Your task to perform on an android device: stop showing notifications on the lock screen Image 0: 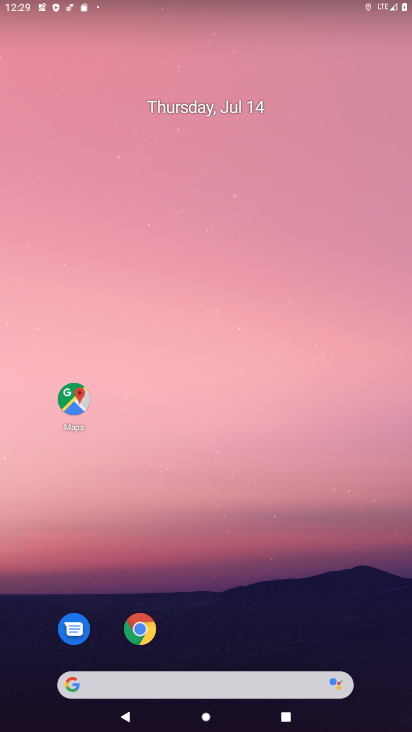
Step 0: drag from (288, 600) to (200, 29)
Your task to perform on an android device: stop showing notifications on the lock screen Image 1: 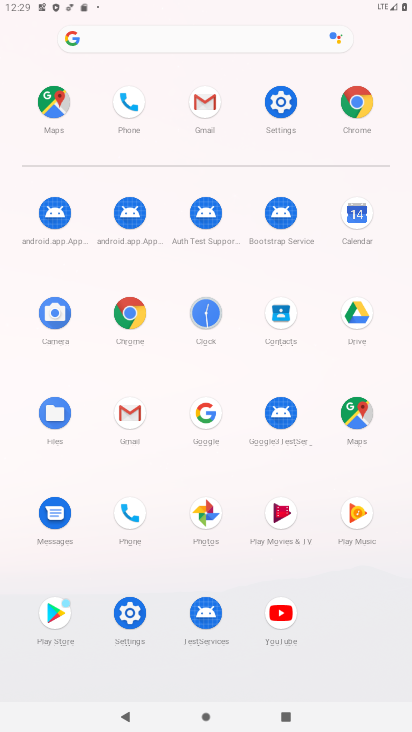
Step 1: click (267, 116)
Your task to perform on an android device: stop showing notifications on the lock screen Image 2: 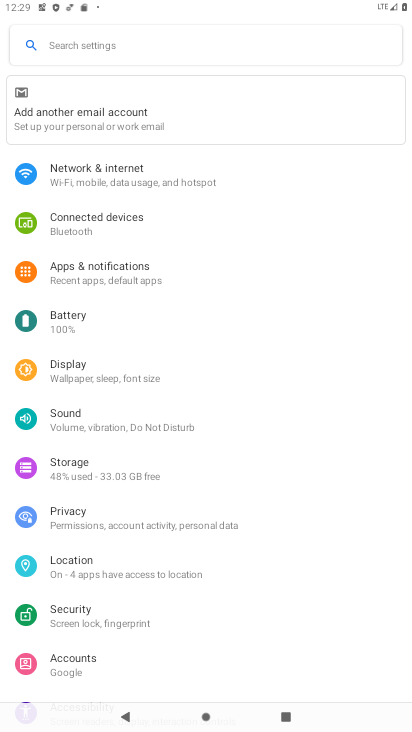
Step 2: click (135, 280)
Your task to perform on an android device: stop showing notifications on the lock screen Image 3: 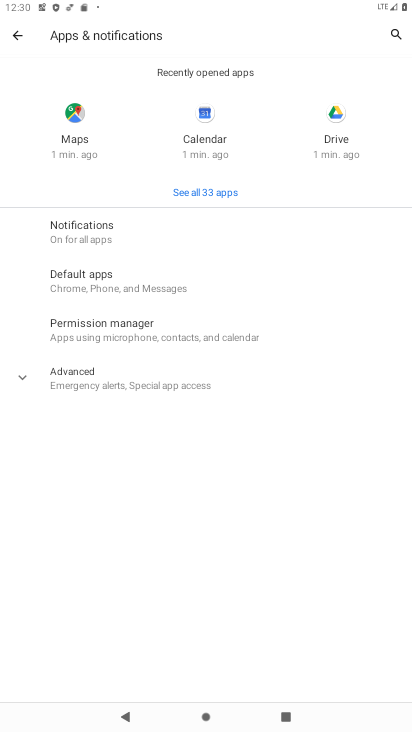
Step 3: click (79, 228)
Your task to perform on an android device: stop showing notifications on the lock screen Image 4: 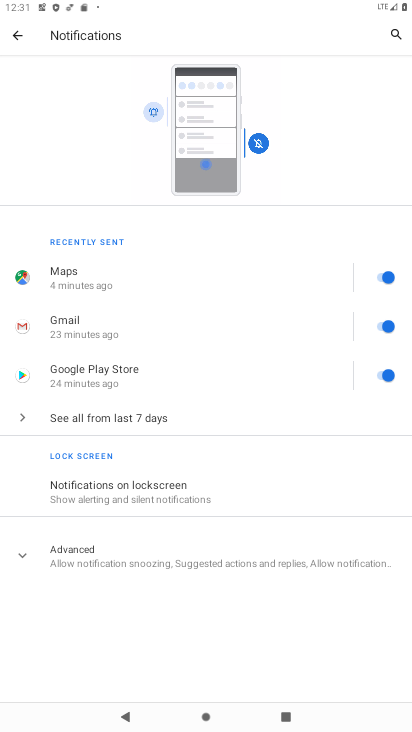
Step 4: click (123, 492)
Your task to perform on an android device: stop showing notifications on the lock screen Image 5: 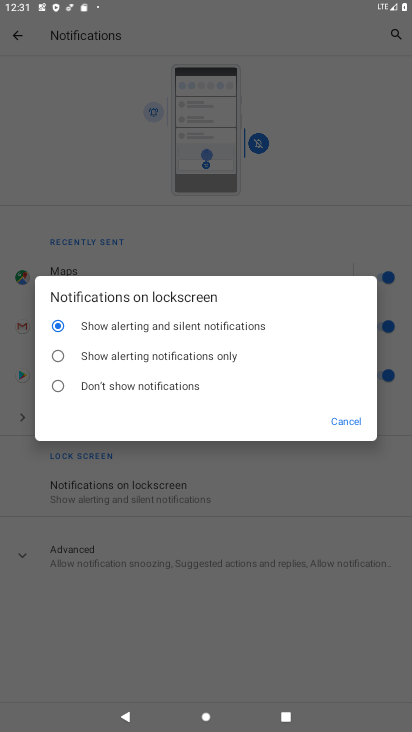
Step 5: click (85, 387)
Your task to perform on an android device: stop showing notifications on the lock screen Image 6: 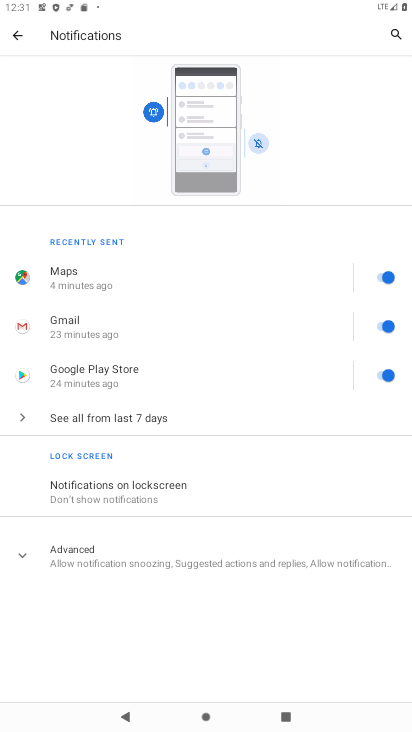
Step 6: task complete